Your task to perform on an android device: open app "Spotify" Image 0: 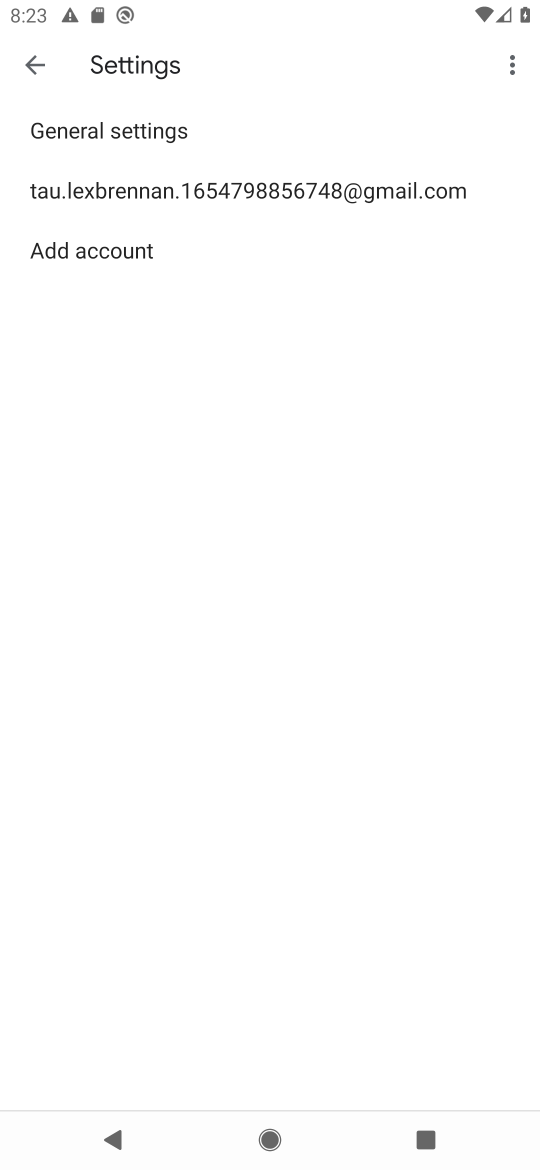
Step 0: press home button
Your task to perform on an android device: open app "Spotify" Image 1: 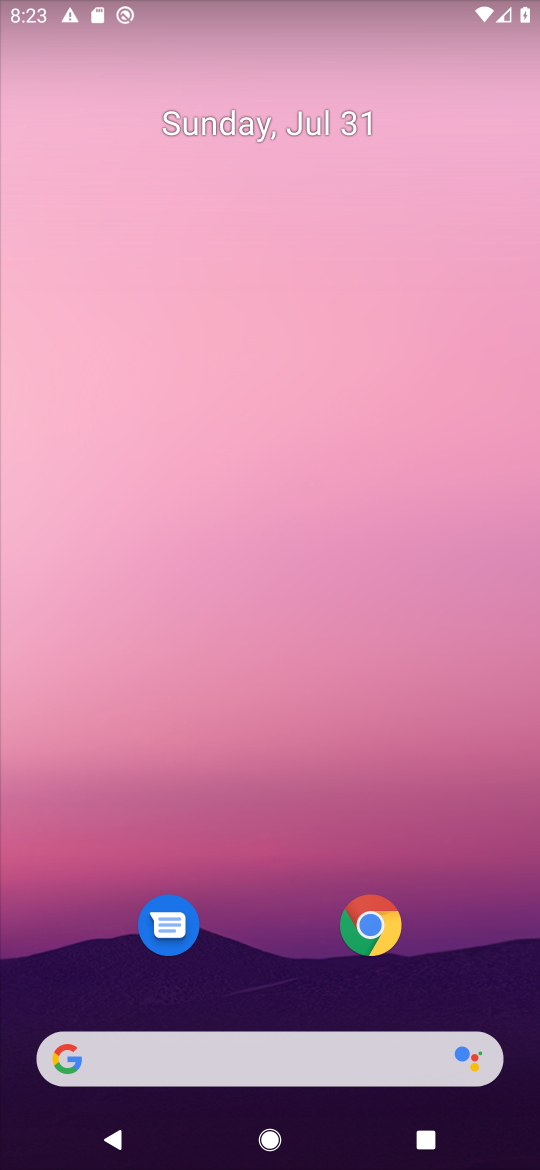
Step 1: drag from (265, 1009) to (189, 107)
Your task to perform on an android device: open app "Spotify" Image 2: 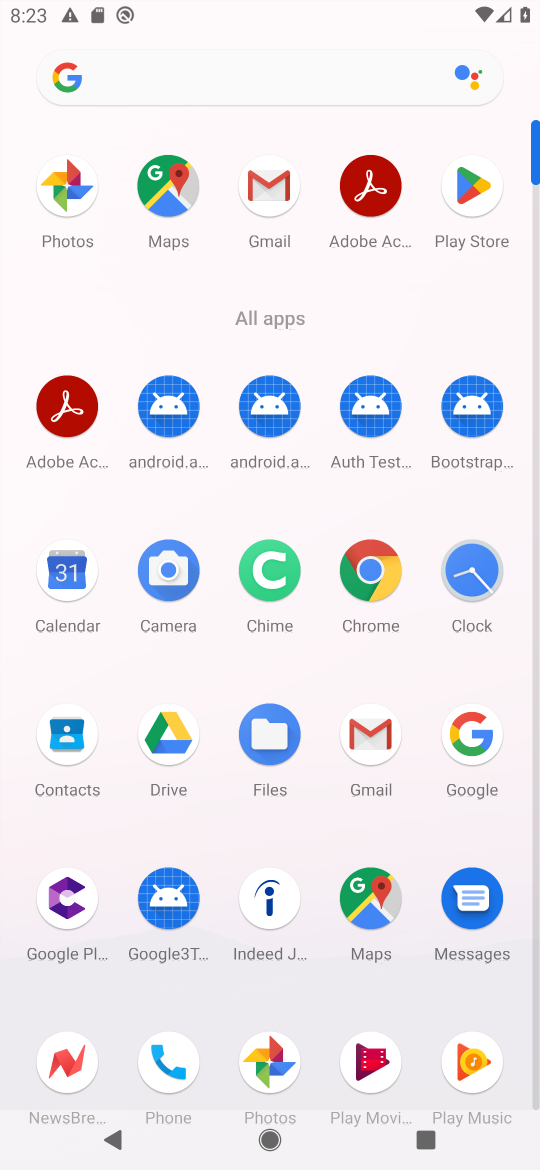
Step 2: click (117, 514)
Your task to perform on an android device: open app "Spotify" Image 3: 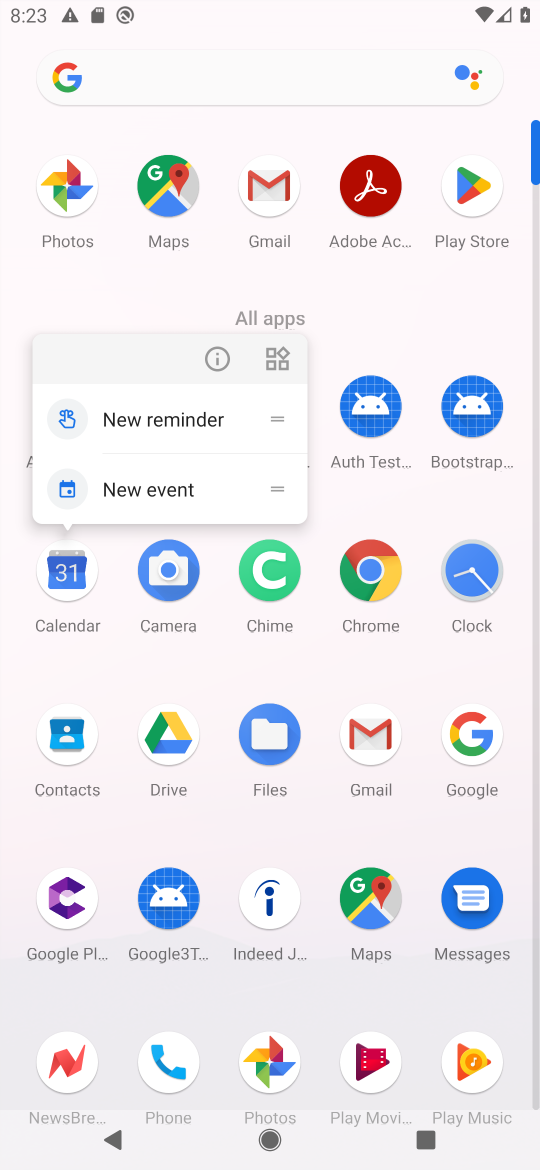
Step 3: click (480, 191)
Your task to perform on an android device: open app "Spotify" Image 4: 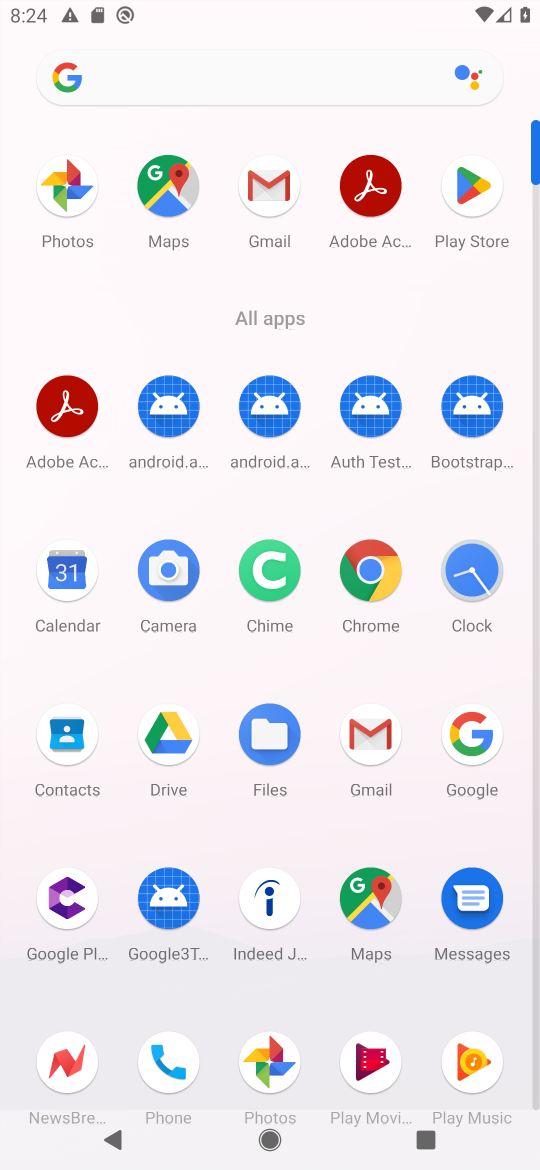
Step 4: click (464, 196)
Your task to perform on an android device: open app "Spotify" Image 5: 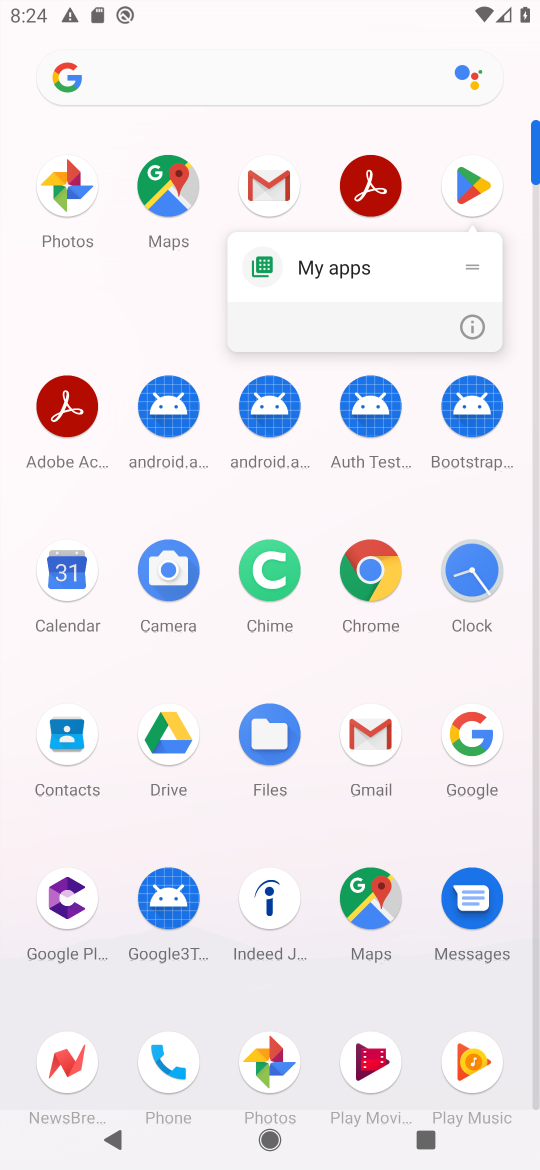
Step 5: click (464, 196)
Your task to perform on an android device: open app "Spotify" Image 6: 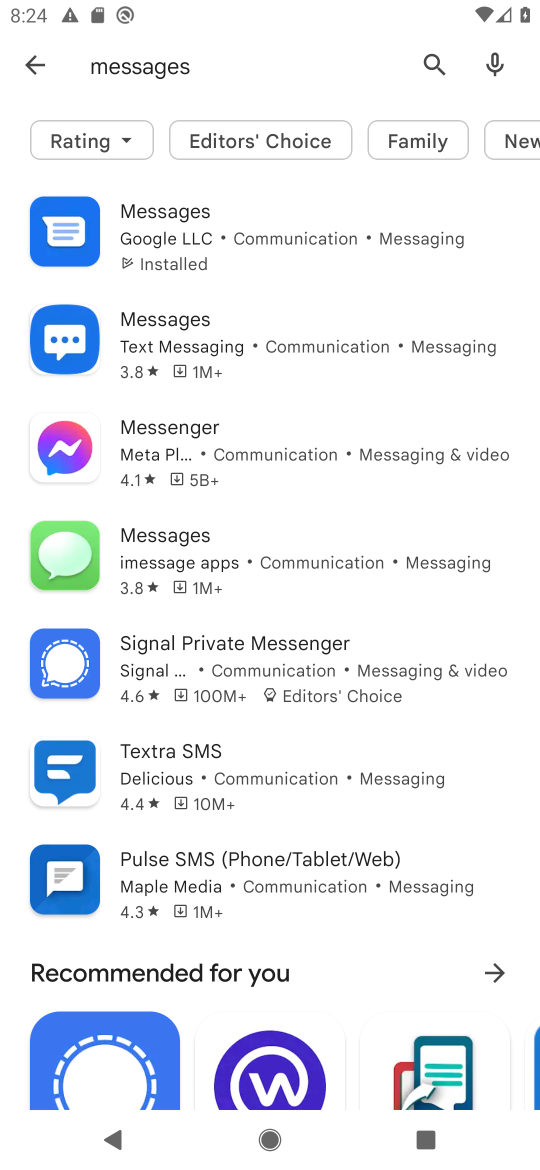
Step 6: click (418, 52)
Your task to perform on an android device: open app "Spotify" Image 7: 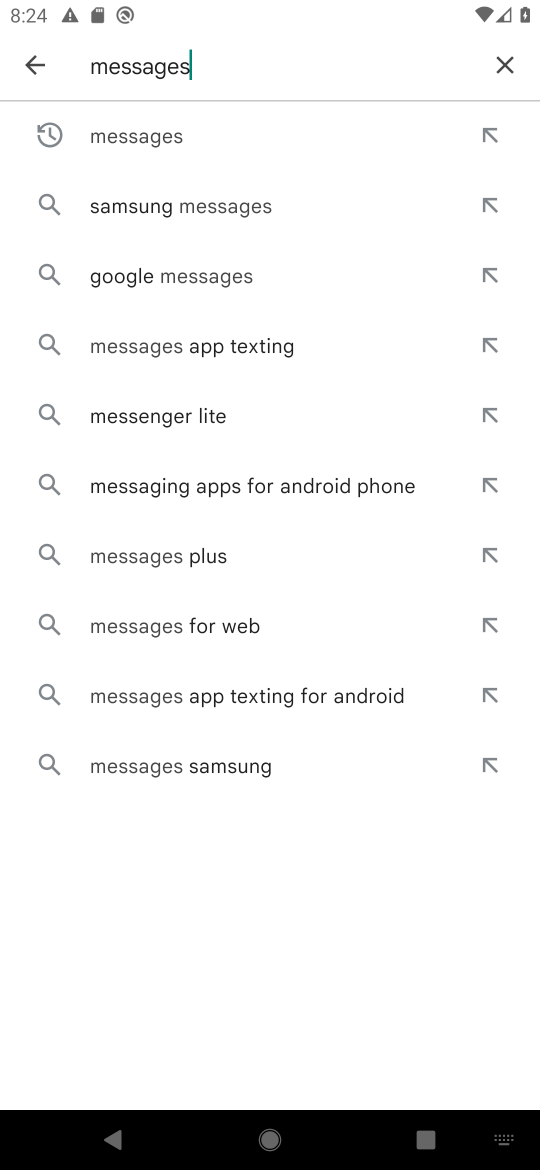
Step 7: click (506, 64)
Your task to perform on an android device: open app "Spotify" Image 8: 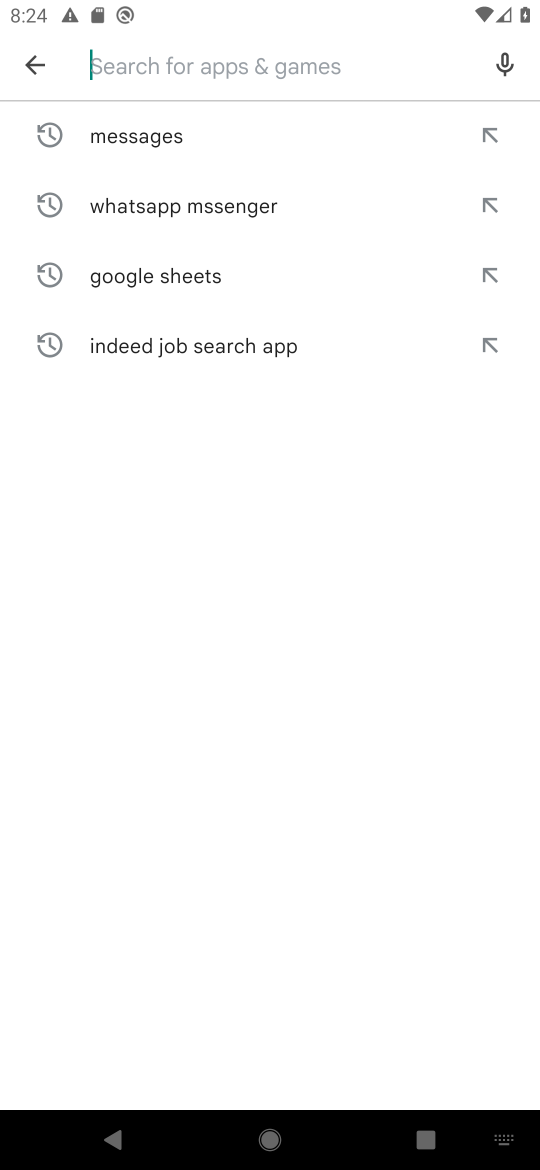
Step 8: type "spotify"
Your task to perform on an android device: open app "Spotify" Image 9: 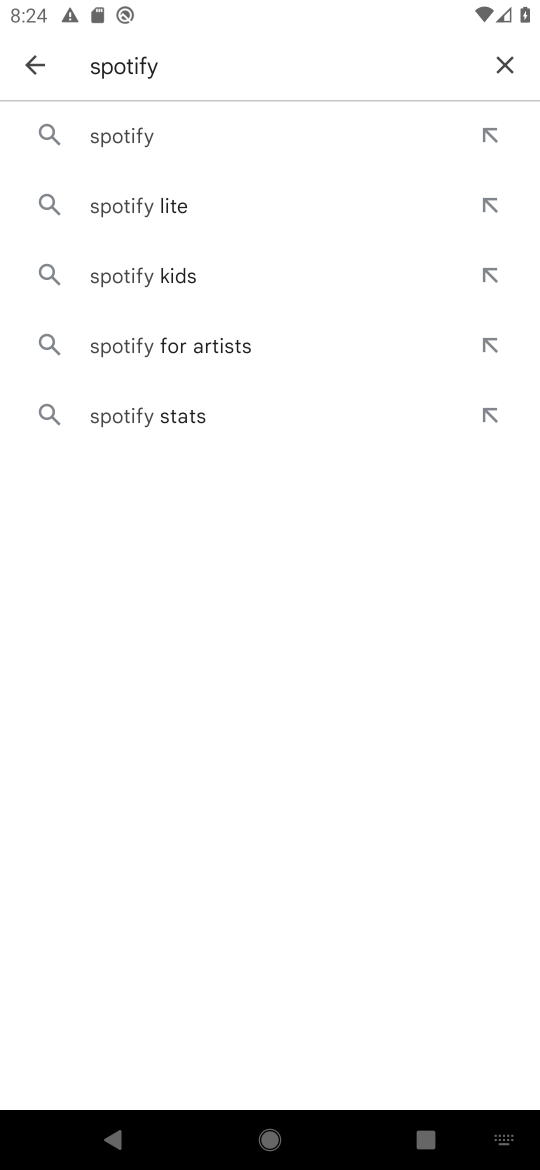
Step 9: click (106, 141)
Your task to perform on an android device: open app "Spotify" Image 10: 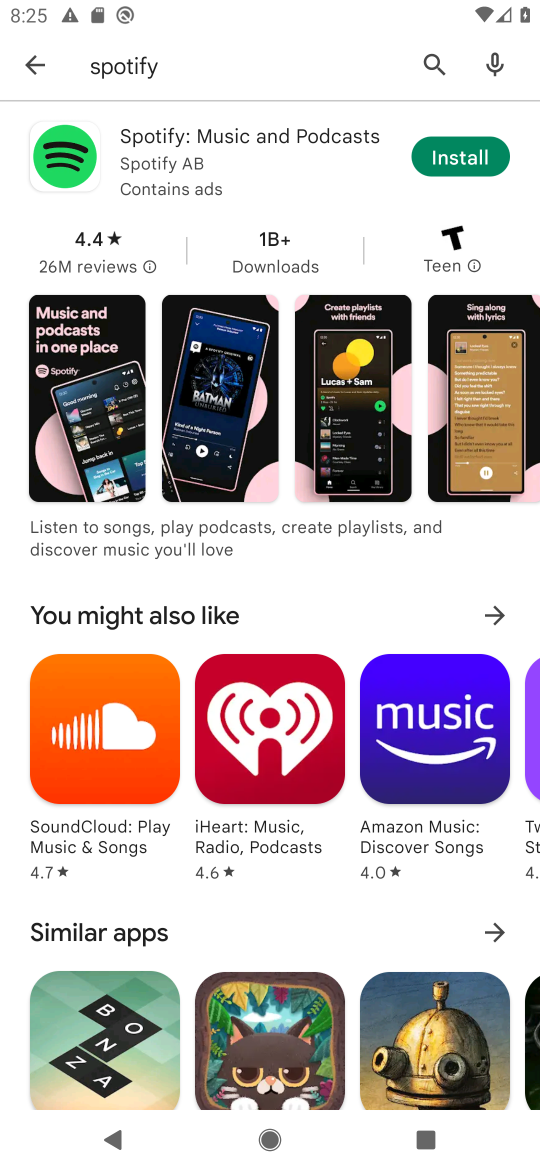
Step 10: click (295, 152)
Your task to perform on an android device: open app "Spotify" Image 11: 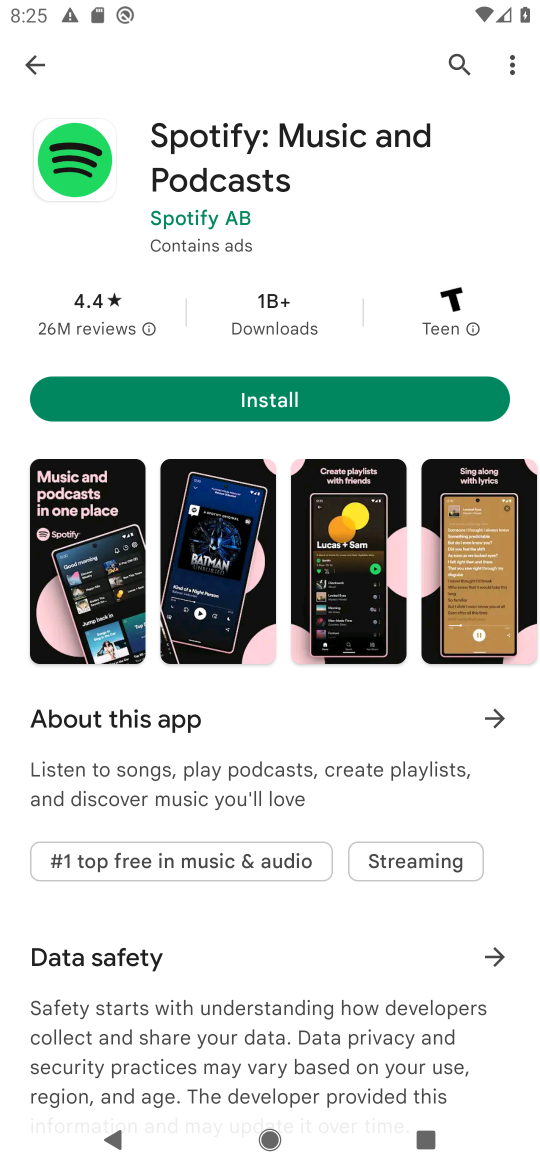
Step 11: task complete